Your task to perform on an android device: stop showing notifications on the lock screen Image 0: 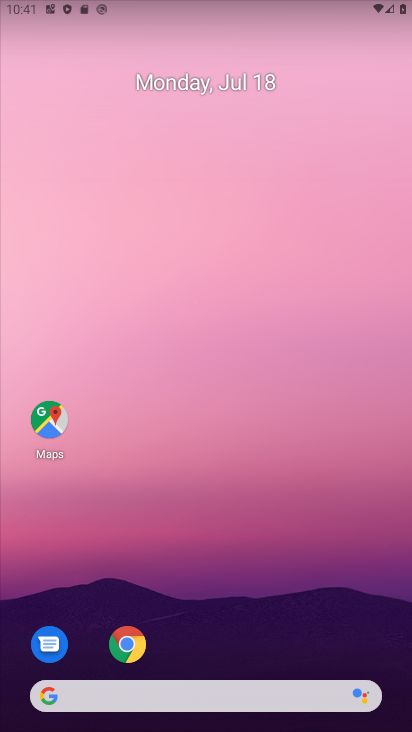
Step 0: drag from (238, 641) to (305, 85)
Your task to perform on an android device: stop showing notifications on the lock screen Image 1: 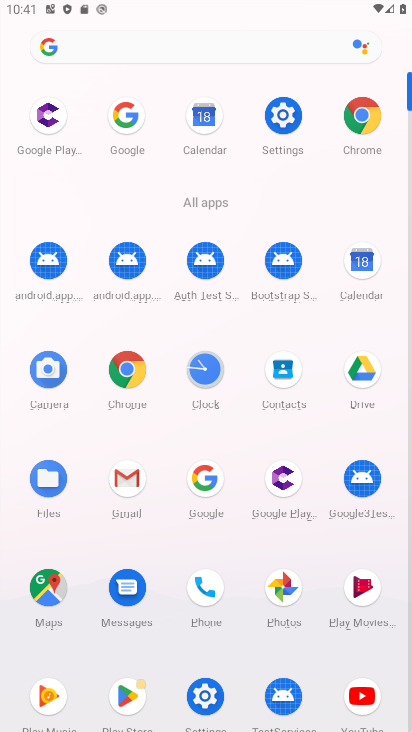
Step 1: click (284, 126)
Your task to perform on an android device: stop showing notifications on the lock screen Image 2: 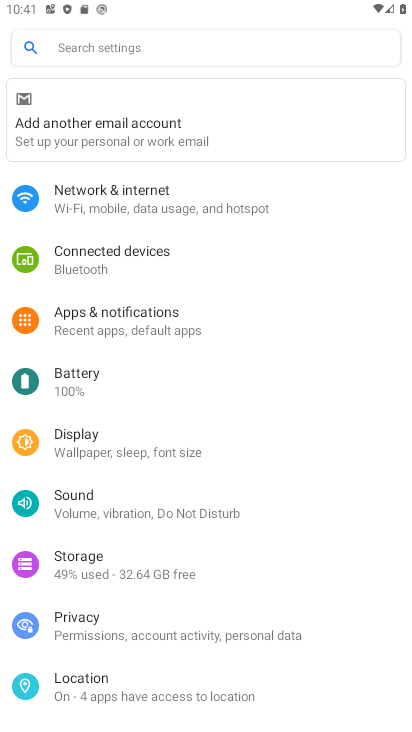
Step 2: click (137, 320)
Your task to perform on an android device: stop showing notifications on the lock screen Image 3: 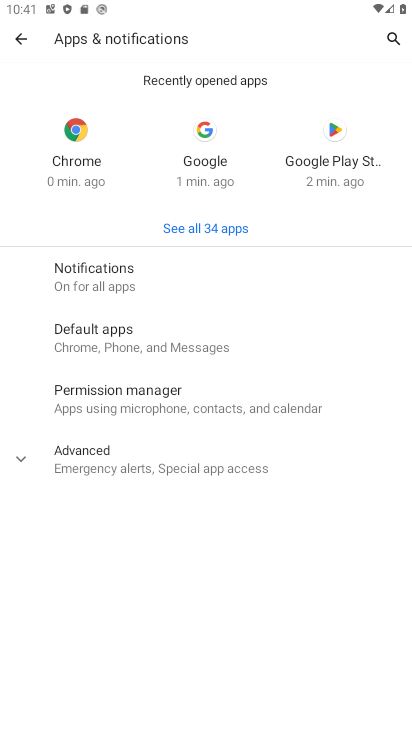
Step 3: click (121, 275)
Your task to perform on an android device: stop showing notifications on the lock screen Image 4: 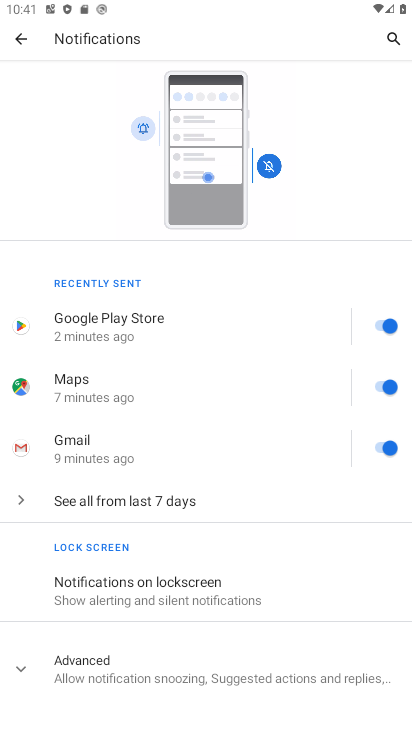
Step 4: click (163, 599)
Your task to perform on an android device: stop showing notifications on the lock screen Image 5: 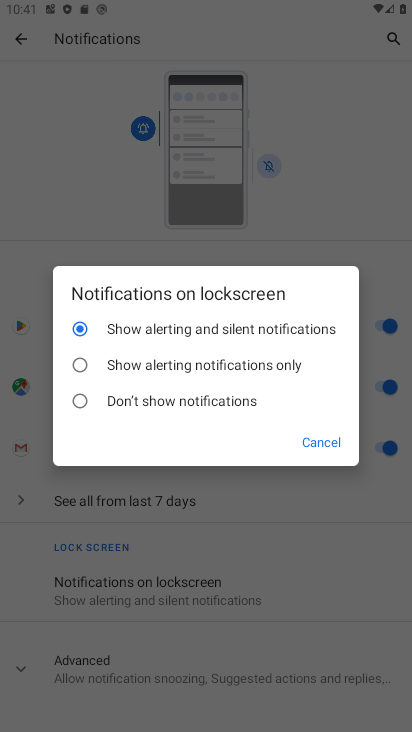
Step 5: click (79, 397)
Your task to perform on an android device: stop showing notifications on the lock screen Image 6: 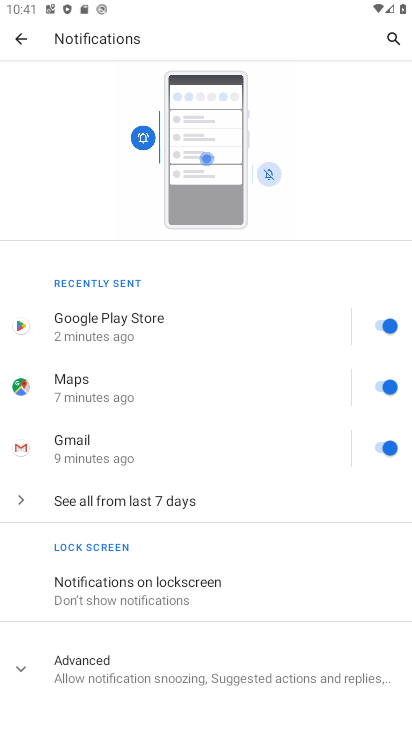
Step 6: task complete